Your task to perform on an android device: turn on showing notifications on the lock screen Image 0: 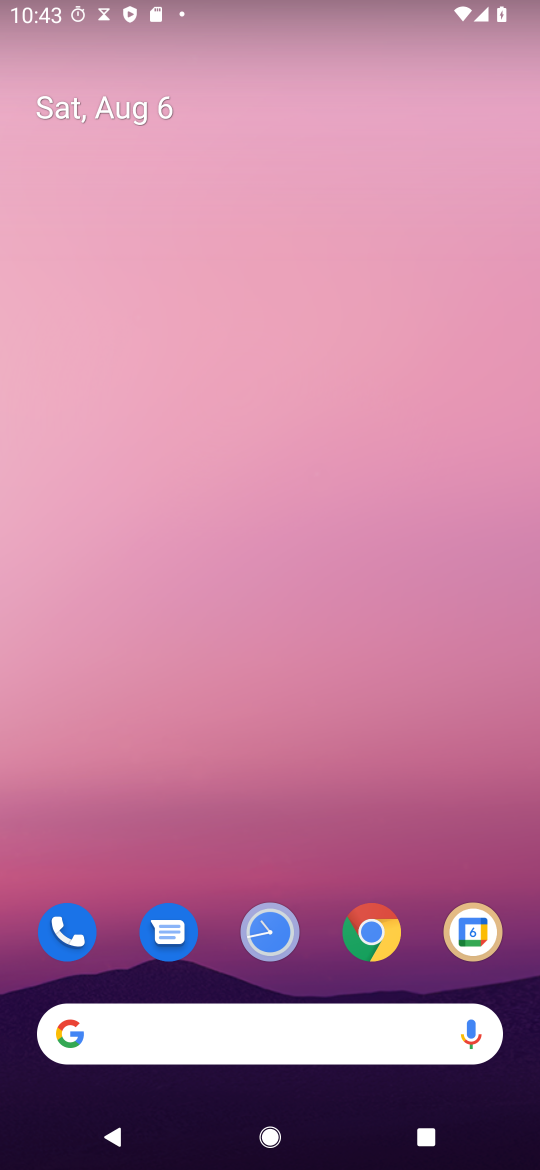
Step 0: drag from (188, 1051) to (201, 171)
Your task to perform on an android device: turn on showing notifications on the lock screen Image 1: 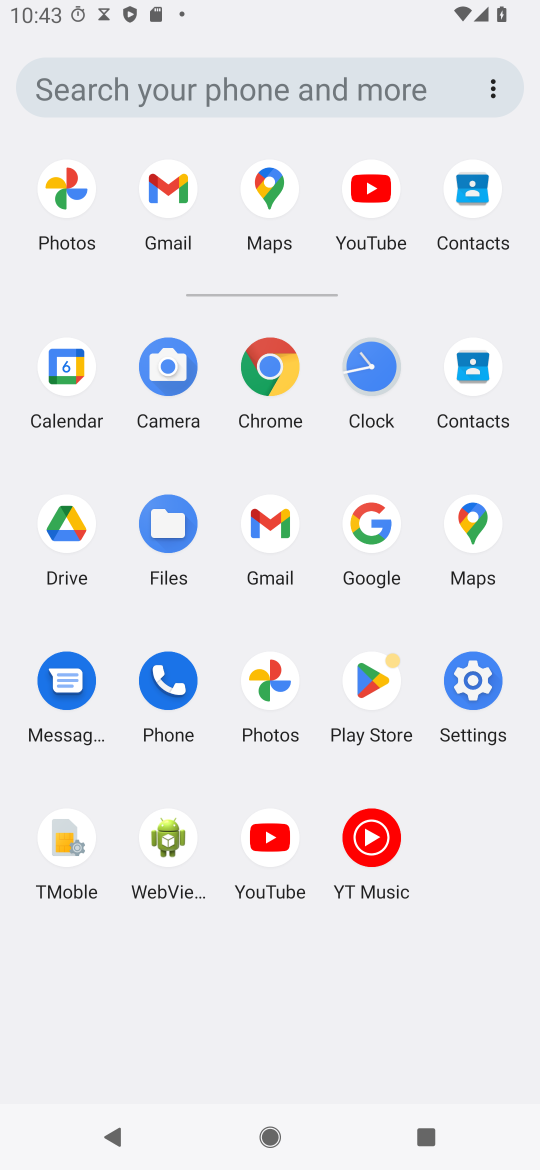
Step 1: click (471, 681)
Your task to perform on an android device: turn on showing notifications on the lock screen Image 2: 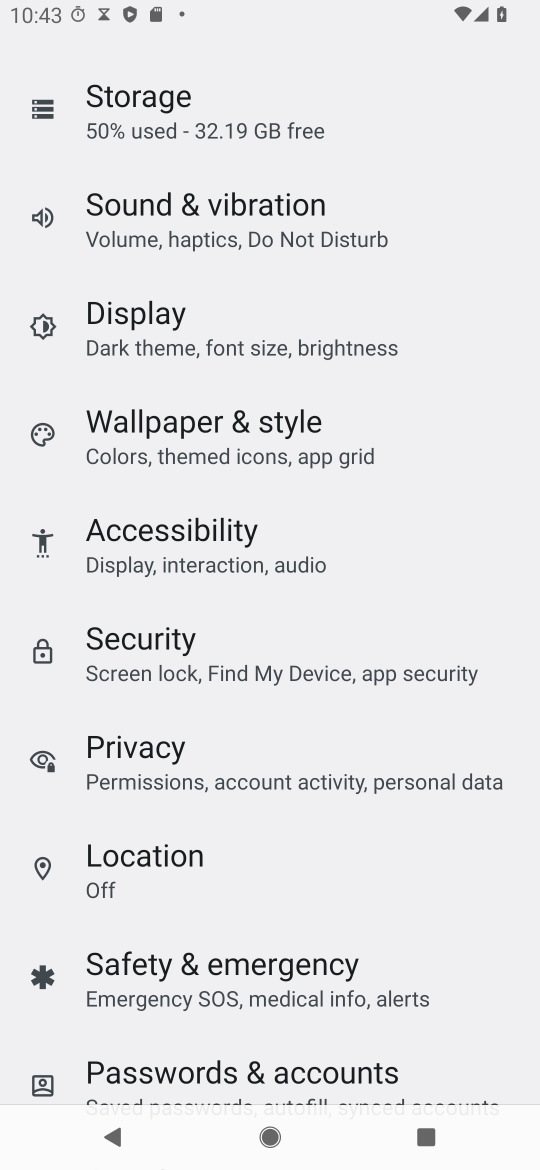
Step 2: drag from (265, 171) to (242, 719)
Your task to perform on an android device: turn on showing notifications on the lock screen Image 3: 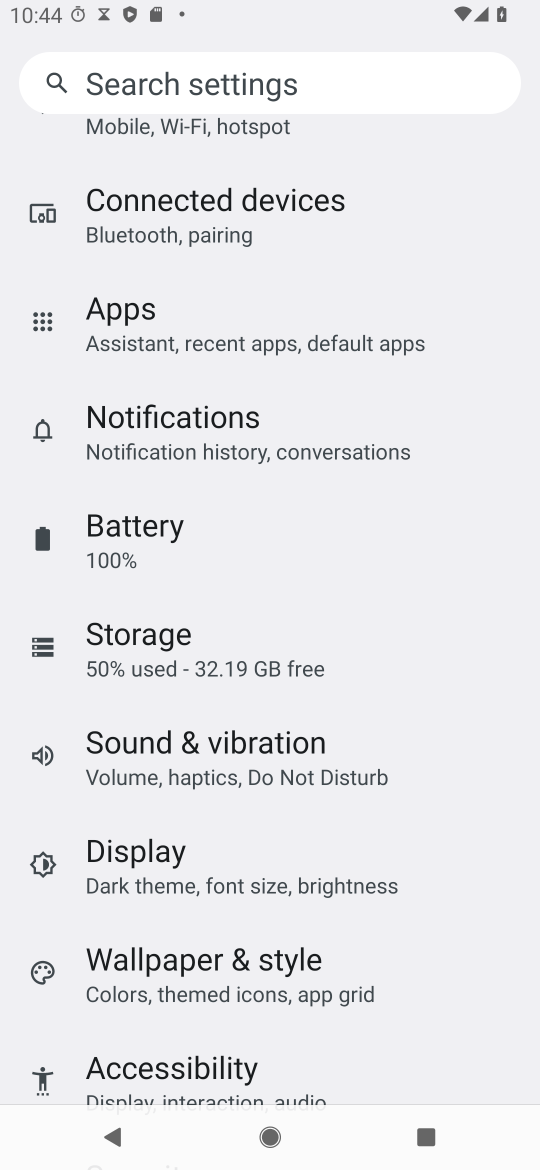
Step 3: click (197, 445)
Your task to perform on an android device: turn on showing notifications on the lock screen Image 4: 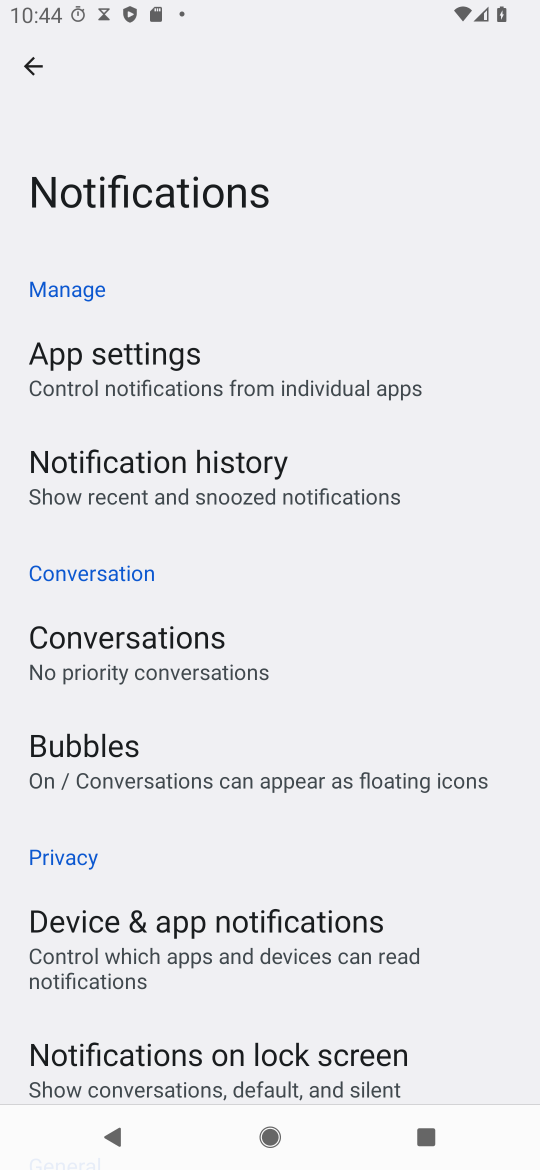
Step 4: drag from (236, 1014) to (413, 767)
Your task to perform on an android device: turn on showing notifications on the lock screen Image 5: 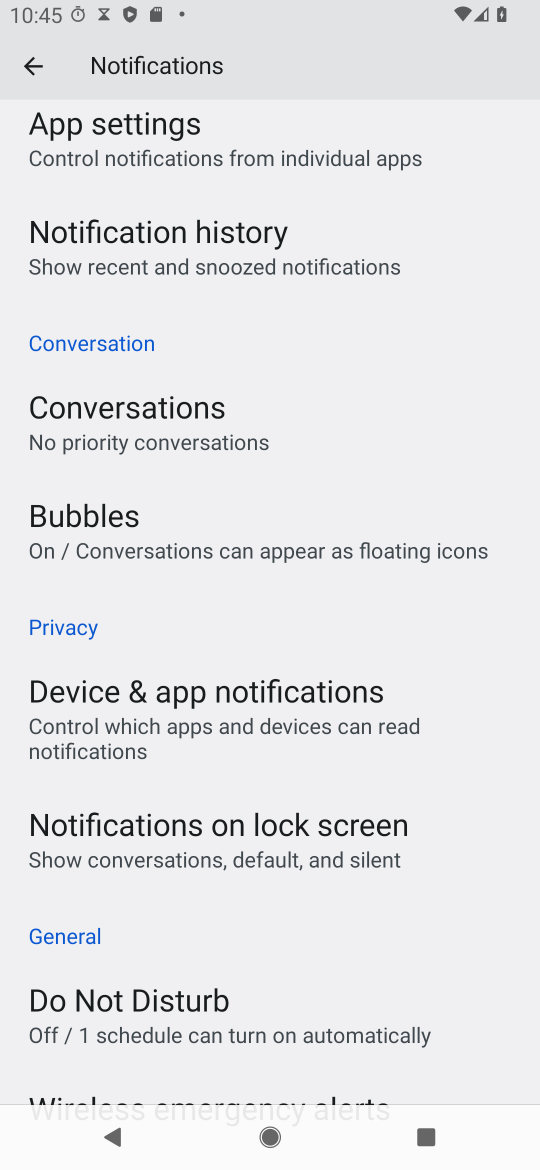
Step 5: click (195, 847)
Your task to perform on an android device: turn on showing notifications on the lock screen Image 6: 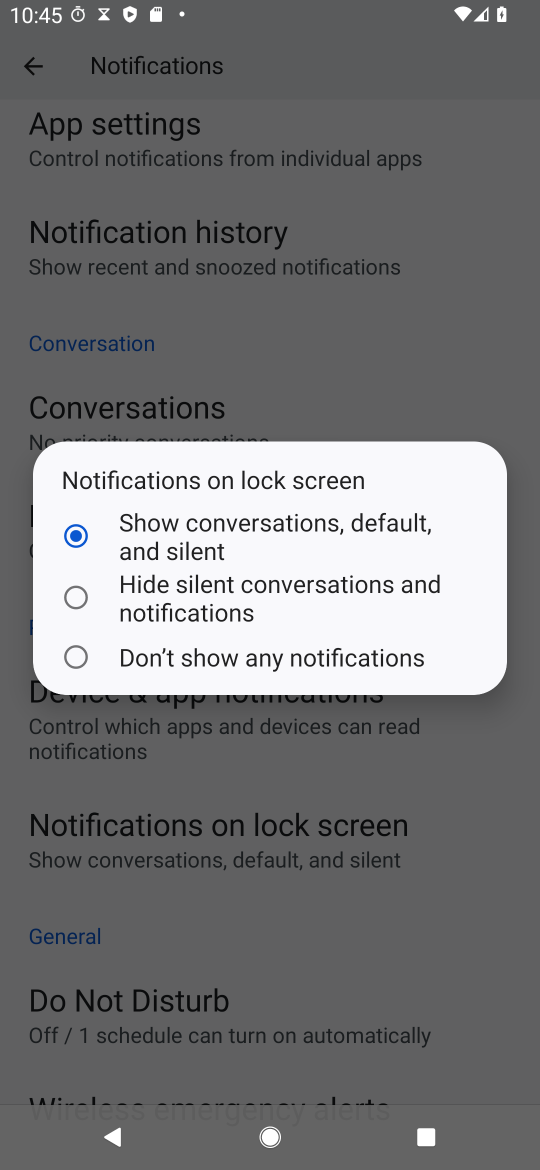
Step 6: click (72, 538)
Your task to perform on an android device: turn on showing notifications on the lock screen Image 7: 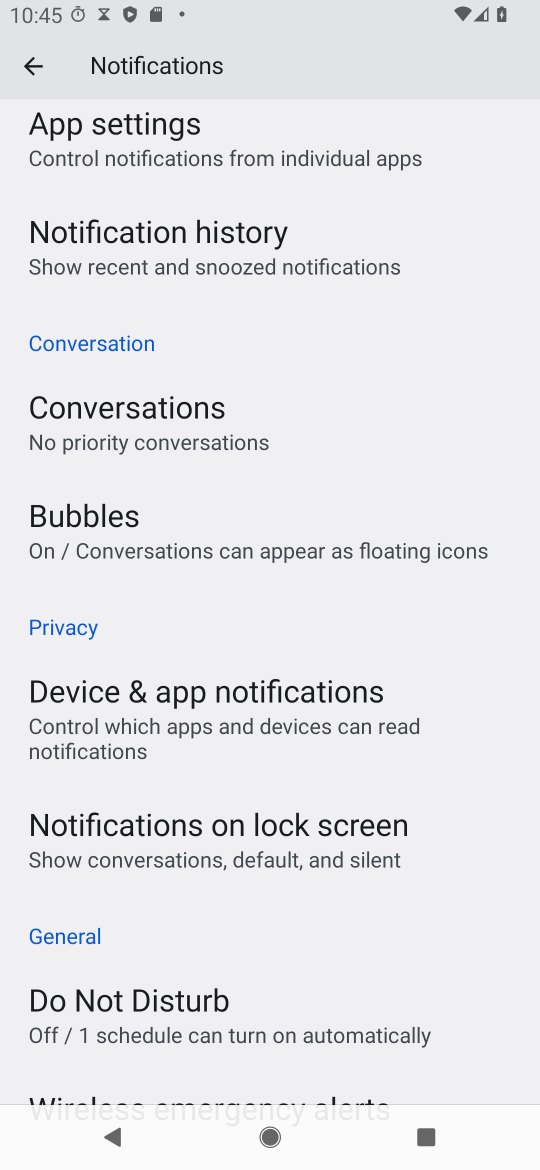
Step 7: task complete